Your task to perform on an android device: change keyboard looks Image 0: 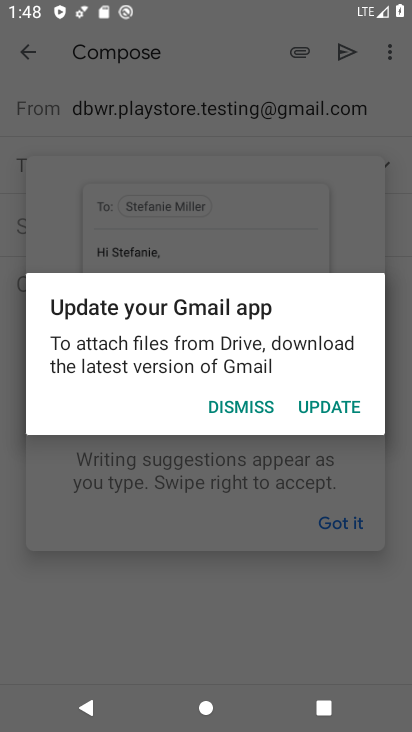
Step 0: press home button
Your task to perform on an android device: change keyboard looks Image 1: 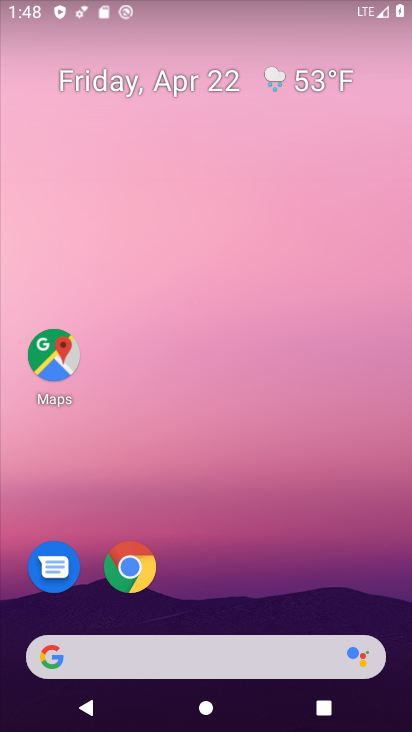
Step 1: drag from (323, 602) to (305, 82)
Your task to perform on an android device: change keyboard looks Image 2: 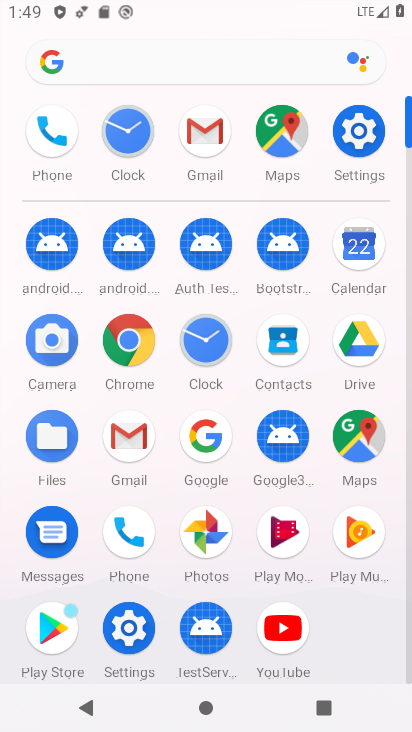
Step 2: click (137, 622)
Your task to perform on an android device: change keyboard looks Image 3: 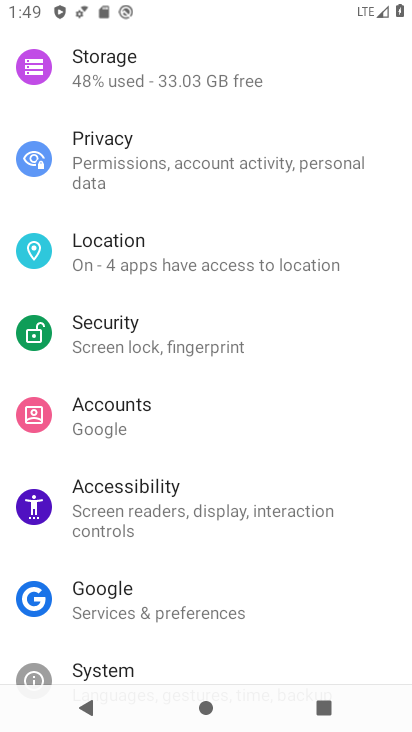
Step 3: drag from (223, 615) to (266, 311)
Your task to perform on an android device: change keyboard looks Image 4: 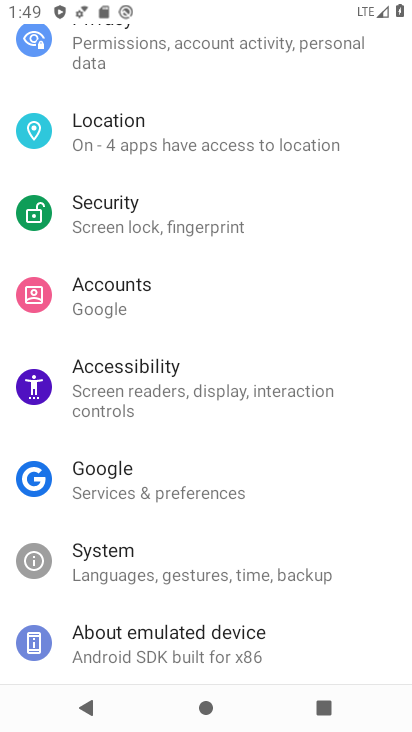
Step 4: click (120, 574)
Your task to perform on an android device: change keyboard looks Image 5: 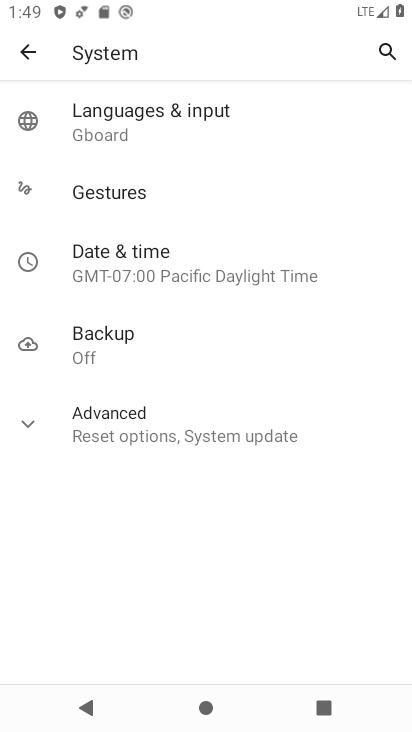
Step 5: click (128, 122)
Your task to perform on an android device: change keyboard looks Image 6: 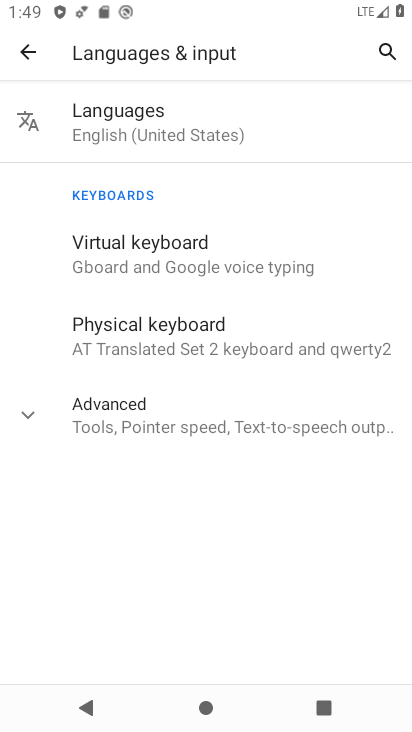
Step 6: click (165, 331)
Your task to perform on an android device: change keyboard looks Image 7: 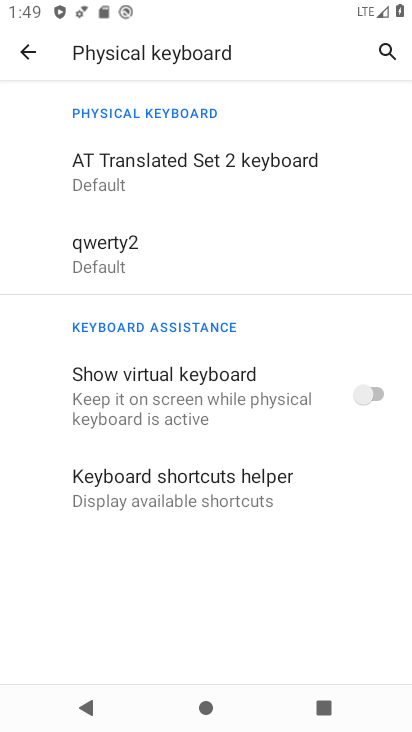
Step 7: click (102, 242)
Your task to perform on an android device: change keyboard looks Image 8: 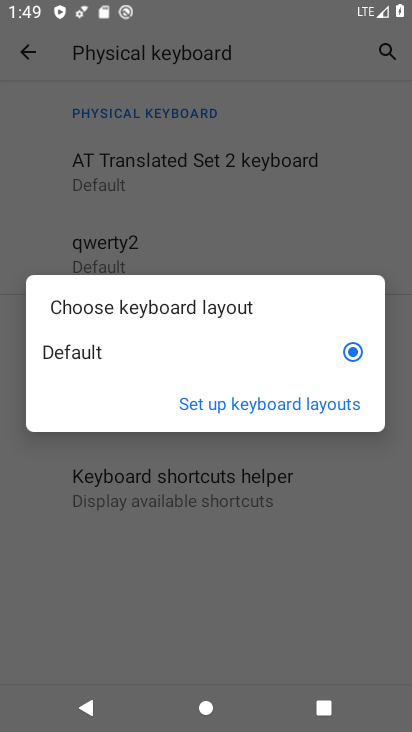
Step 8: click (278, 410)
Your task to perform on an android device: change keyboard looks Image 9: 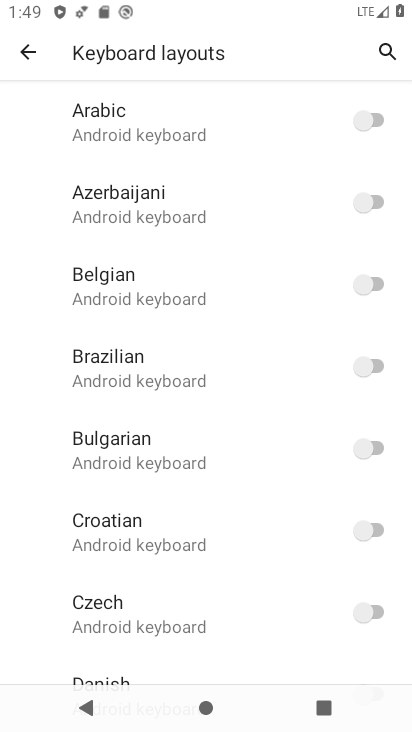
Step 9: drag from (236, 619) to (256, 303)
Your task to perform on an android device: change keyboard looks Image 10: 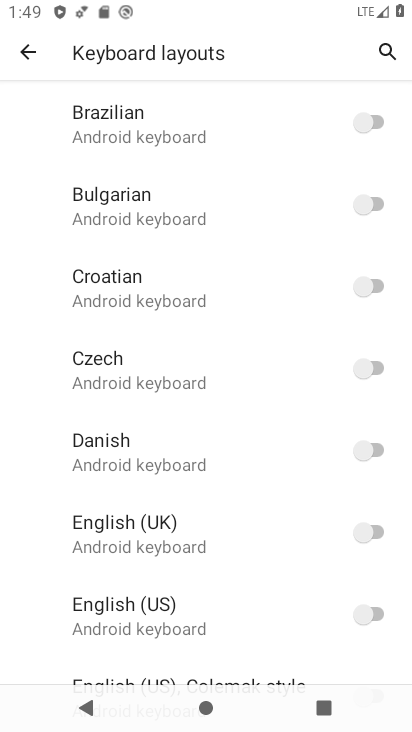
Step 10: click (372, 529)
Your task to perform on an android device: change keyboard looks Image 11: 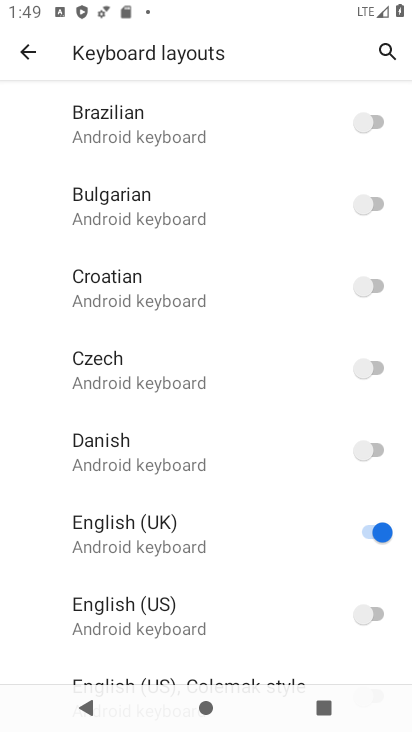
Step 11: task complete